Your task to perform on an android device: Open location settings Image 0: 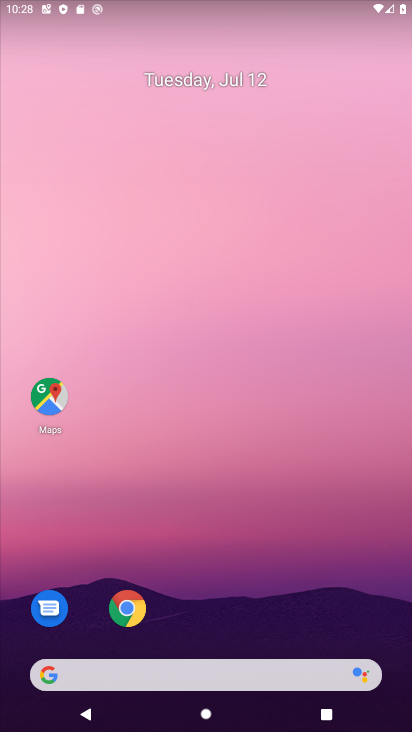
Step 0: drag from (260, 605) to (297, 62)
Your task to perform on an android device: Open location settings Image 1: 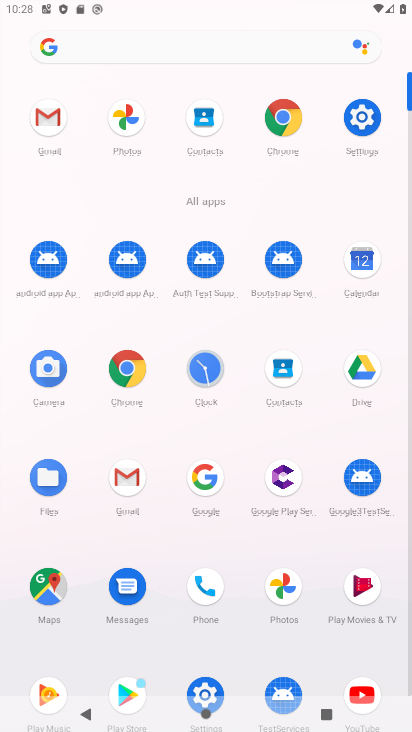
Step 1: click (359, 112)
Your task to perform on an android device: Open location settings Image 2: 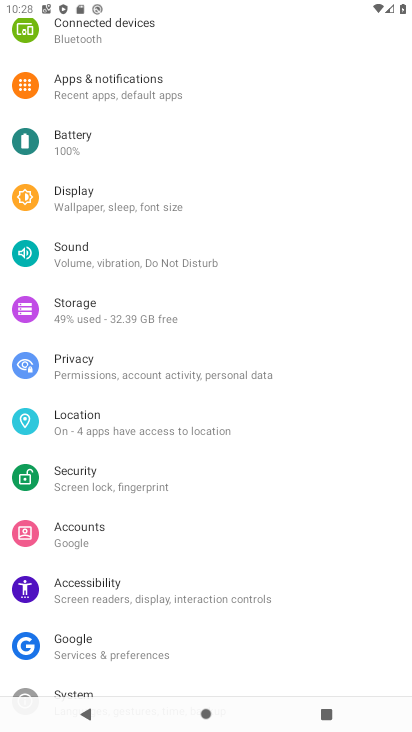
Step 2: click (135, 422)
Your task to perform on an android device: Open location settings Image 3: 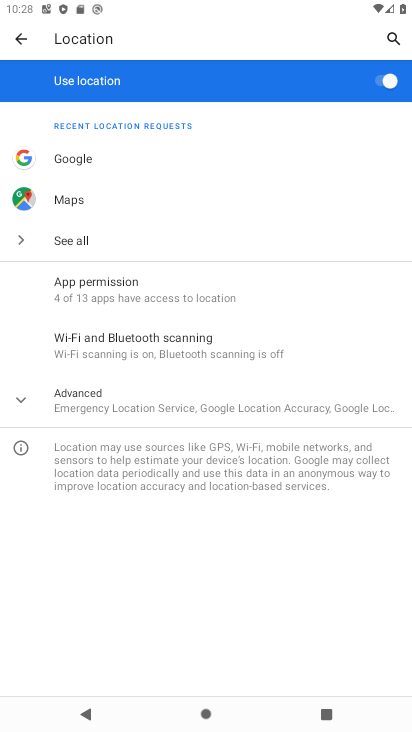
Step 3: task complete